Your task to perform on an android device: Search for Mexican restaurants on Maps Image 0: 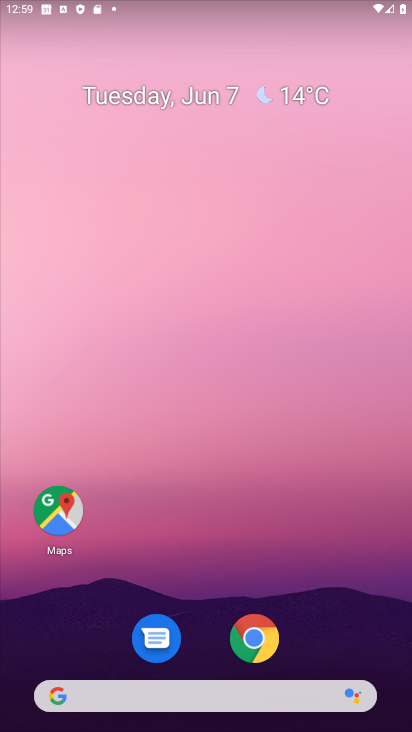
Step 0: drag from (104, 619) to (145, 274)
Your task to perform on an android device: Search for Mexican restaurants on Maps Image 1: 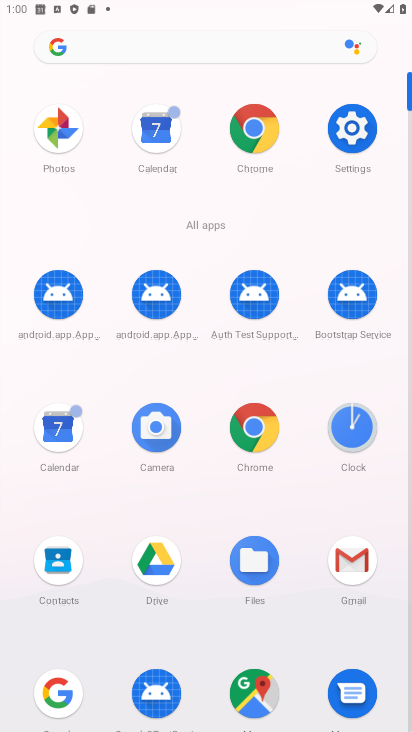
Step 1: drag from (108, 621) to (179, 320)
Your task to perform on an android device: Search for Mexican restaurants on Maps Image 2: 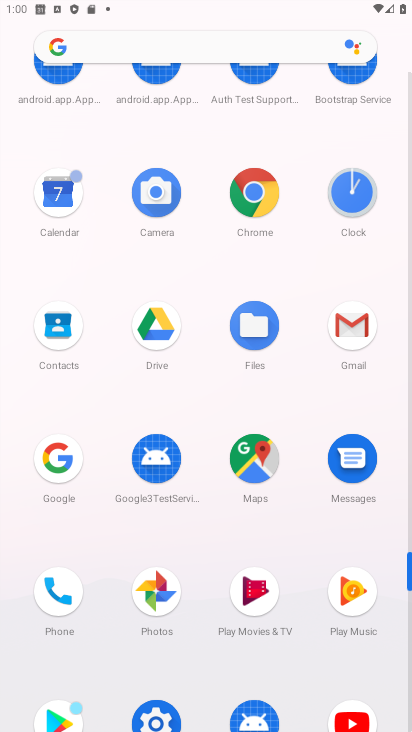
Step 2: drag from (208, 620) to (201, 376)
Your task to perform on an android device: Search for Mexican restaurants on Maps Image 3: 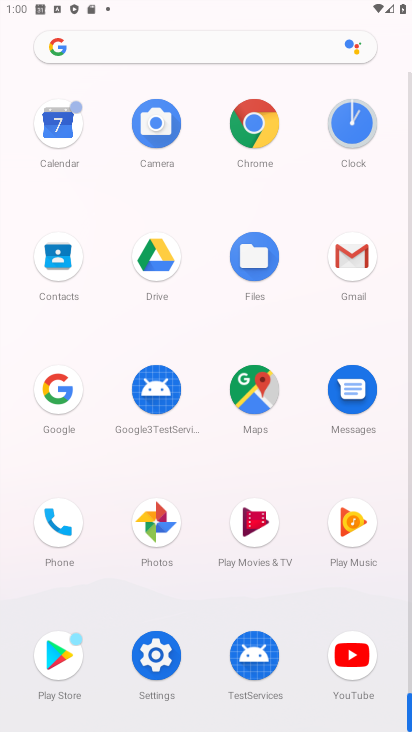
Step 3: click (255, 394)
Your task to perform on an android device: Search for Mexican restaurants on Maps Image 4: 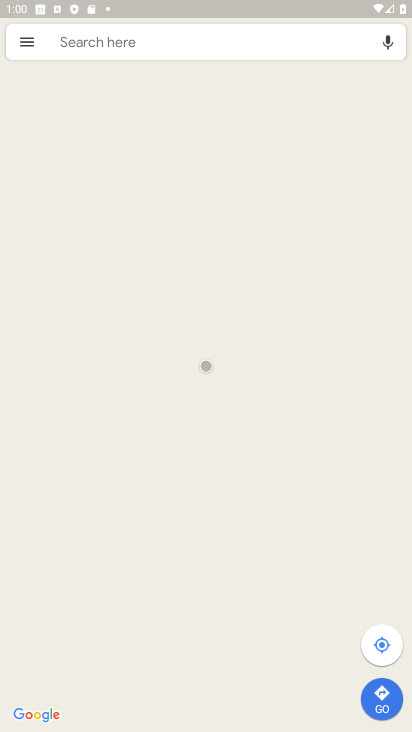
Step 4: click (97, 35)
Your task to perform on an android device: Search for Mexican restaurants on Maps Image 5: 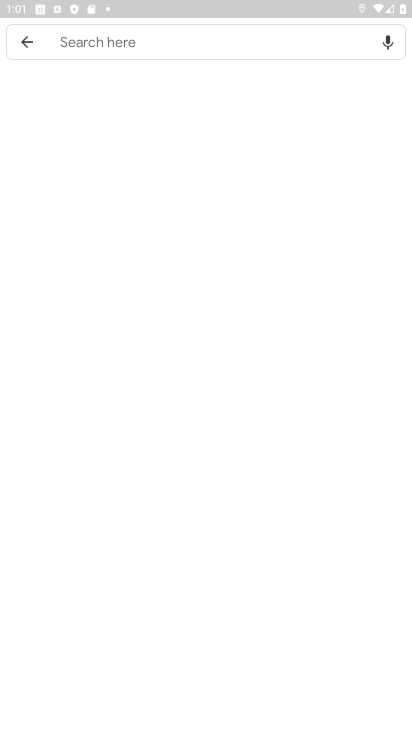
Step 5: task complete